Your task to perform on an android device: delete a single message in the gmail app Image 0: 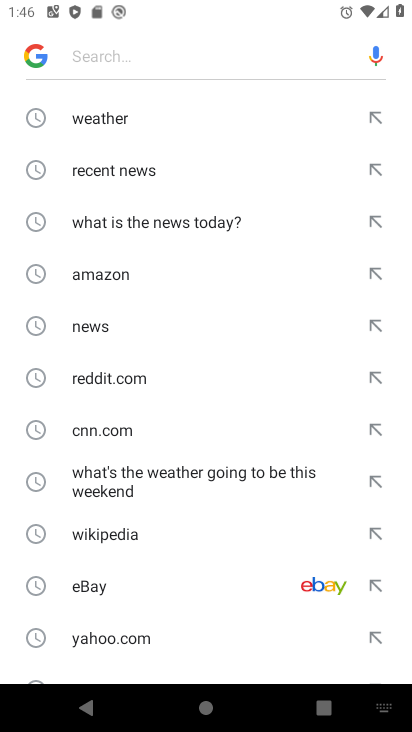
Step 0: press home button
Your task to perform on an android device: delete a single message in the gmail app Image 1: 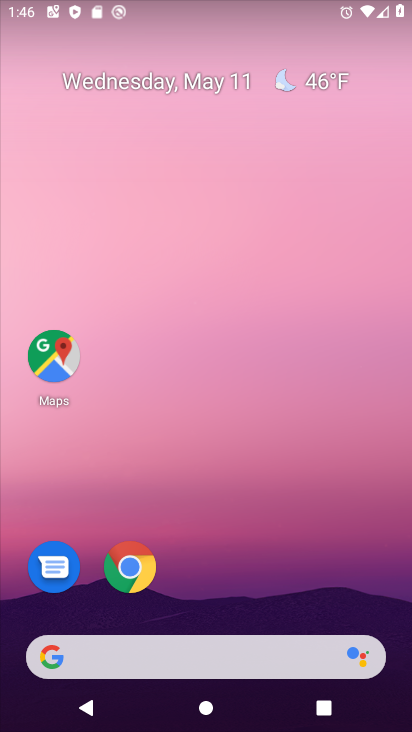
Step 1: drag from (193, 619) to (200, 9)
Your task to perform on an android device: delete a single message in the gmail app Image 2: 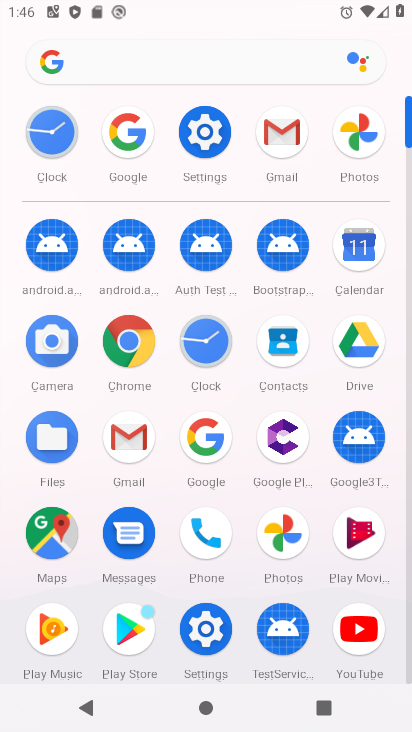
Step 2: click (127, 450)
Your task to perform on an android device: delete a single message in the gmail app Image 3: 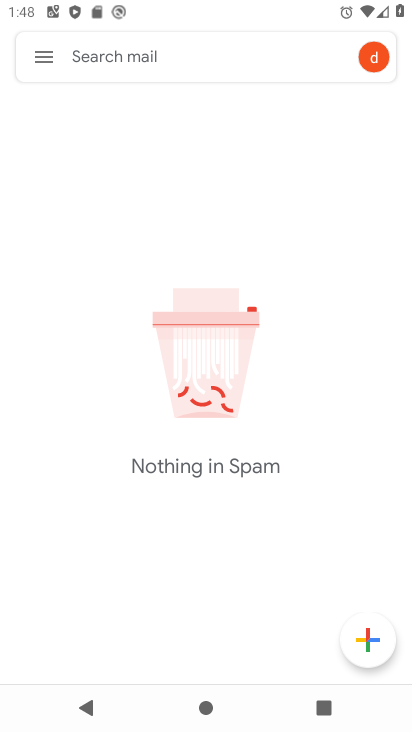
Step 3: click (35, 49)
Your task to perform on an android device: delete a single message in the gmail app Image 4: 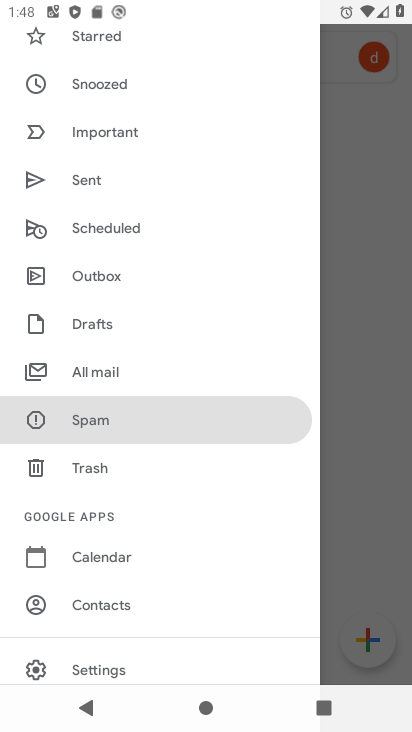
Step 4: drag from (104, 107) to (138, 503)
Your task to perform on an android device: delete a single message in the gmail app Image 5: 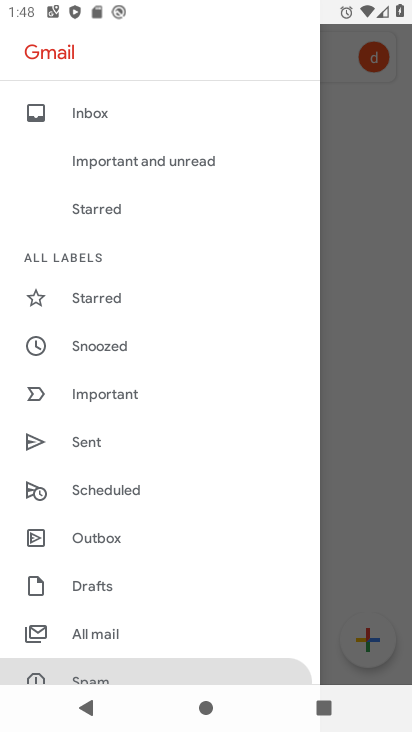
Step 5: click (119, 629)
Your task to perform on an android device: delete a single message in the gmail app Image 6: 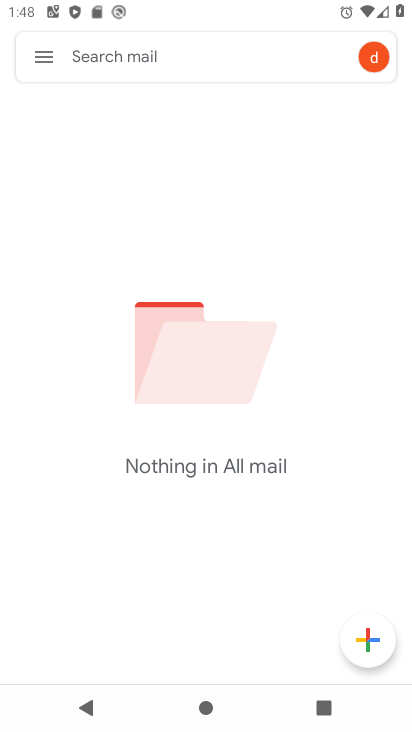
Step 6: task complete